Your task to perform on an android device: change the clock display to digital Image 0: 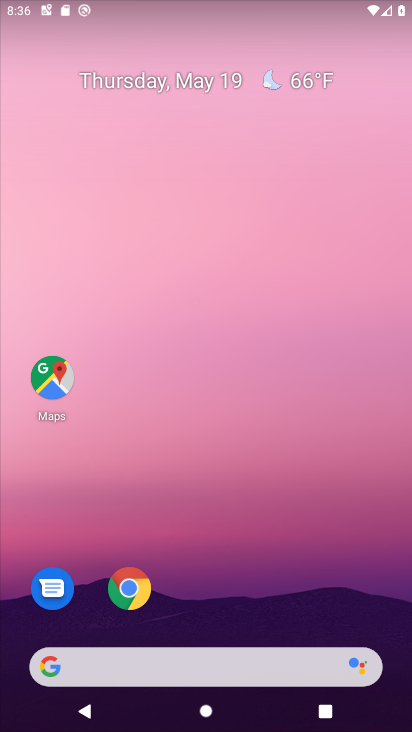
Step 0: drag from (316, 609) to (298, 176)
Your task to perform on an android device: change the clock display to digital Image 1: 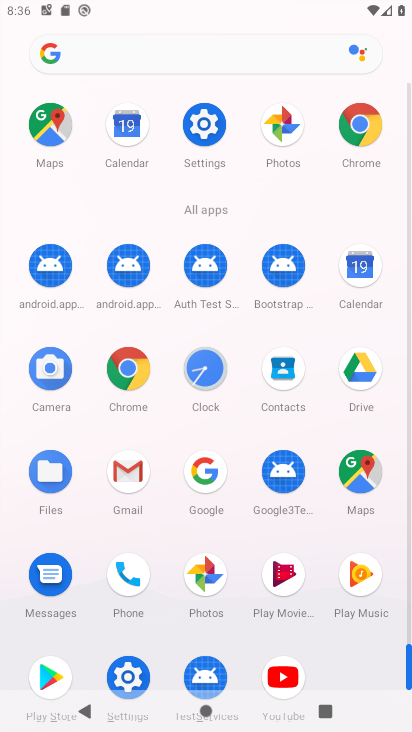
Step 1: click (209, 376)
Your task to perform on an android device: change the clock display to digital Image 2: 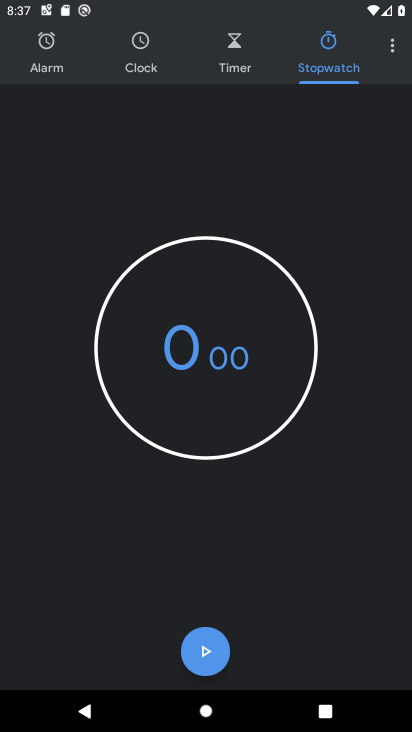
Step 2: click (392, 46)
Your task to perform on an android device: change the clock display to digital Image 3: 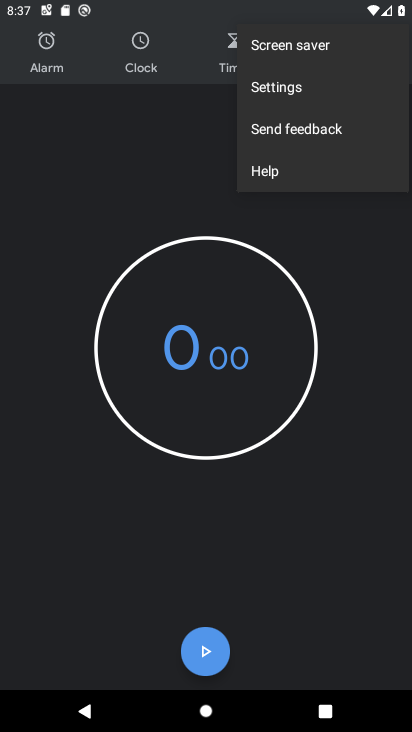
Step 3: click (295, 90)
Your task to perform on an android device: change the clock display to digital Image 4: 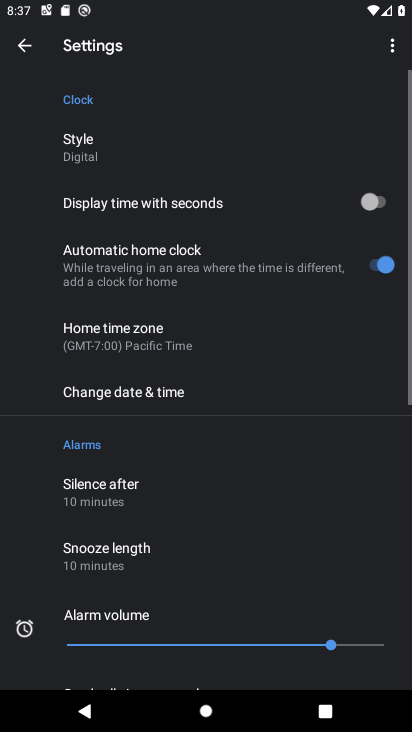
Step 4: task complete